Your task to perform on an android device: Open my contact list Image 0: 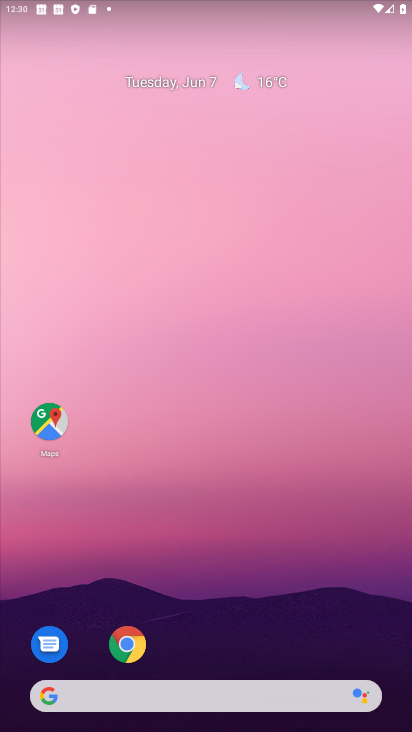
Step 0: drag from (125, 520) to (376, 2)
Your task to perform on an android device: Open my contact list Image 1: 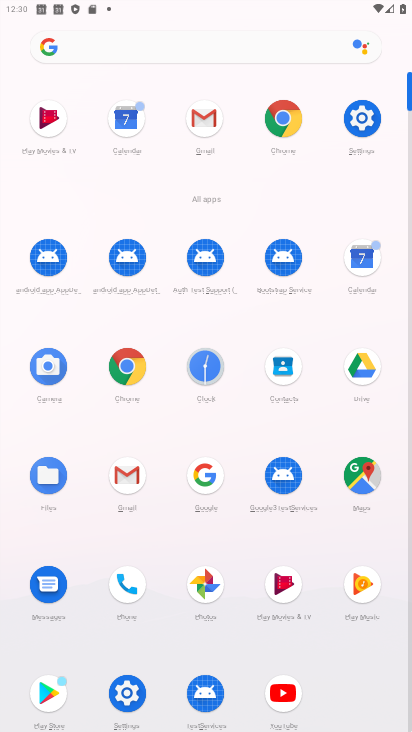
Step 1: click (284, 375)
Your task to perform on an android device: Open my contact list Image 2: 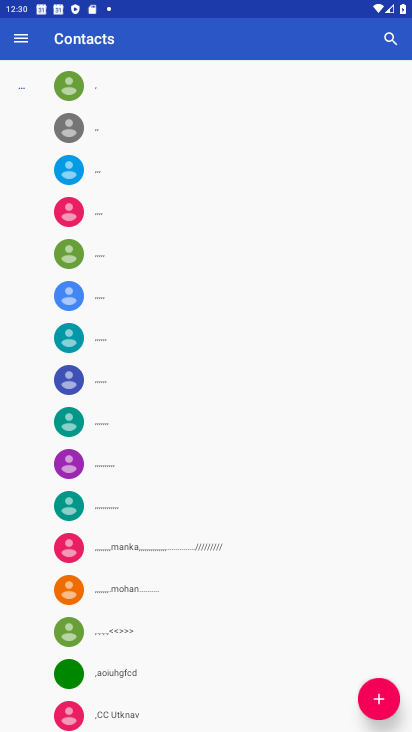
Step 2: task complete